Your task to perform on an android device: Open Yahoo.com Image 0: 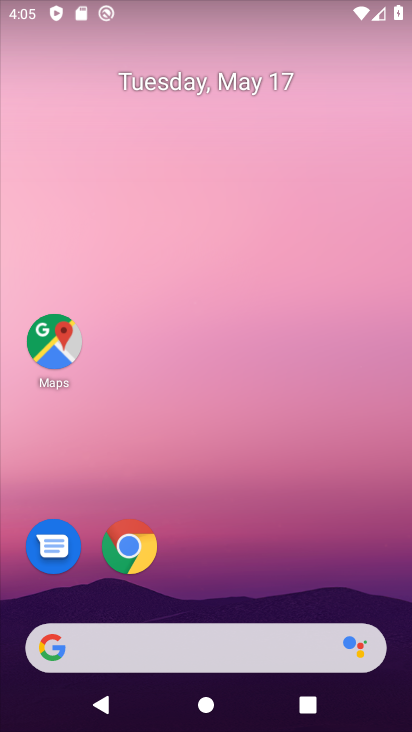
Step 0: click (138, 559)
Your task to perform on an android device: Open Yahoo.com Image 1: 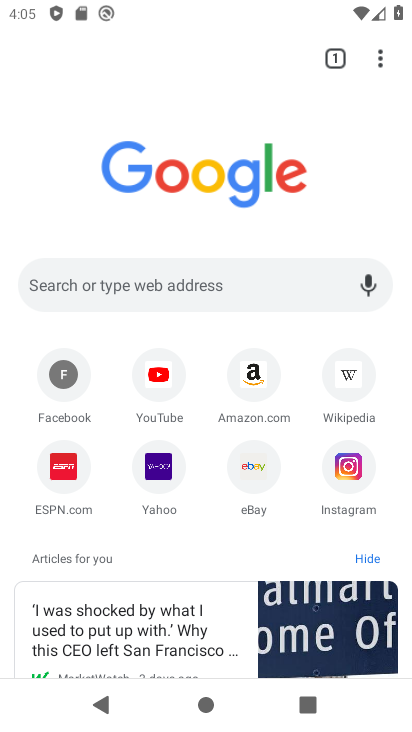
Step 1: click (154, 473)
Your task to perform on an android device: Open Yahoo.com Image 2: 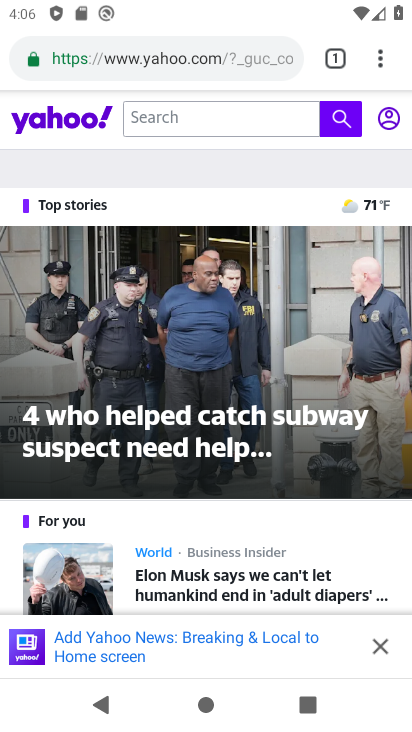
Step 2: task complete